Your task to perform on an android device: allow cookies in the chrome app Image 0: 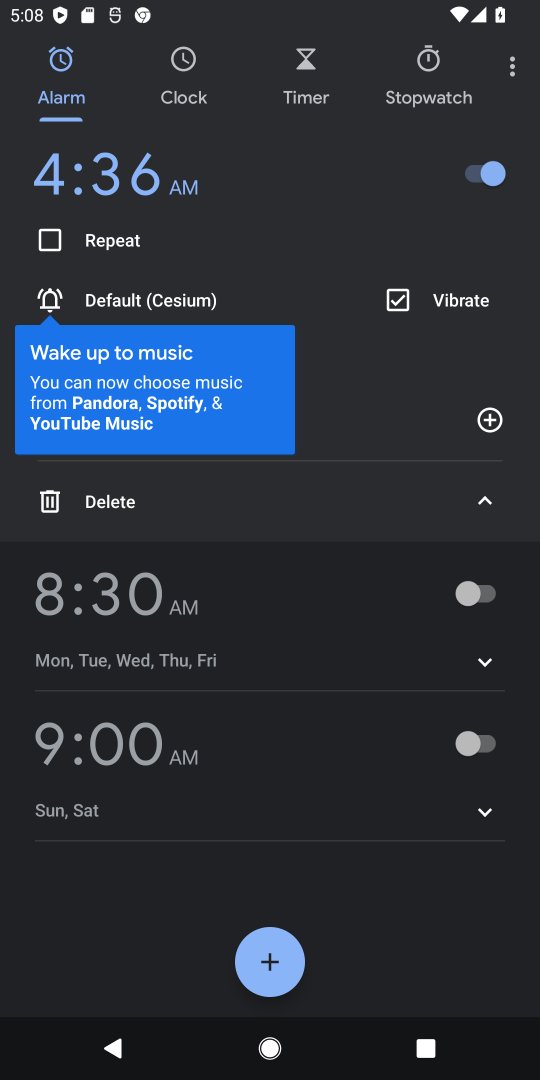
Step 0: press home button
Your task to perform on an android device: allow cookies in the chrome app Image 1: 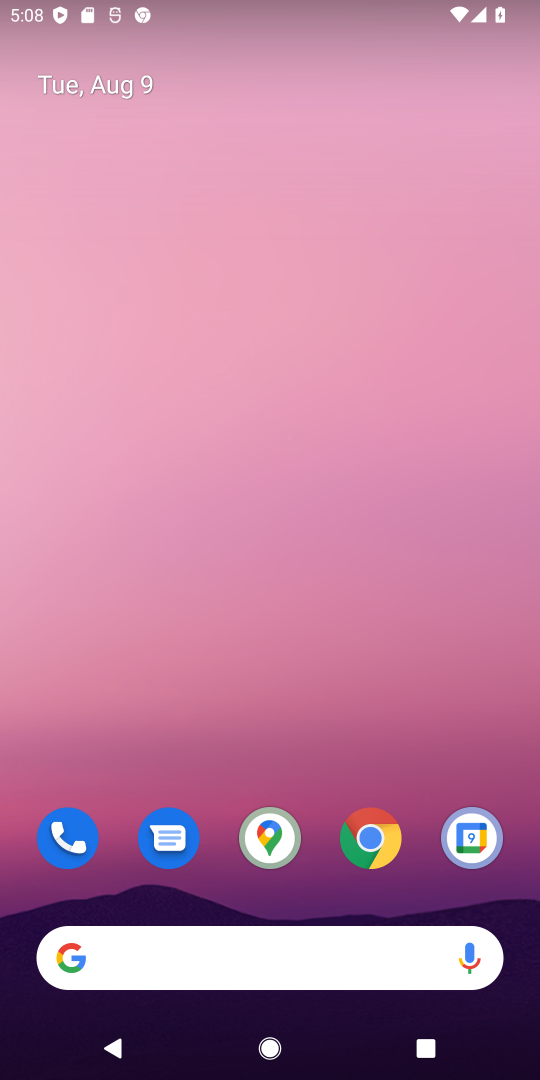
Step 1: click (388, 872)
Your task to perform on an android device: allow cookies in the chrome app Image 2: 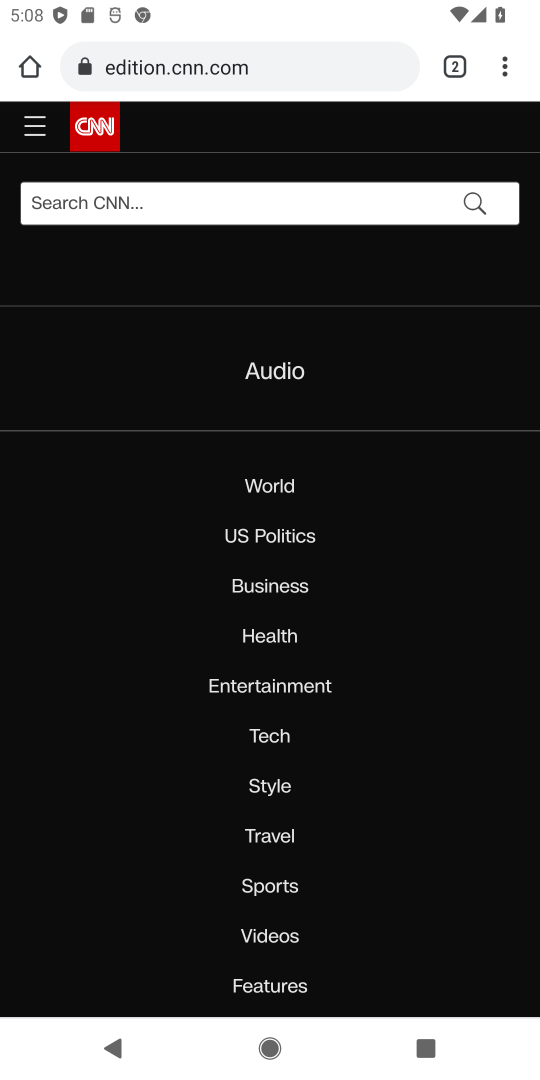
Step 2: click (519, 80)
Your task to perform on an android device: allow cookies in the chrome app Image 3: 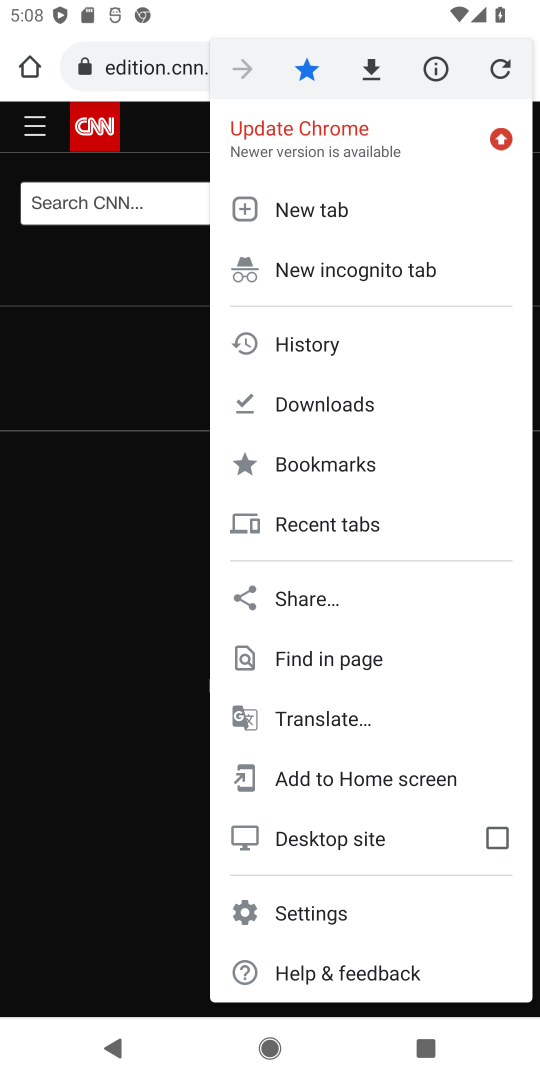
Step 3: click (304, 908)
Your task to perform on an android device: allow cookies in the chrome app Image 4: 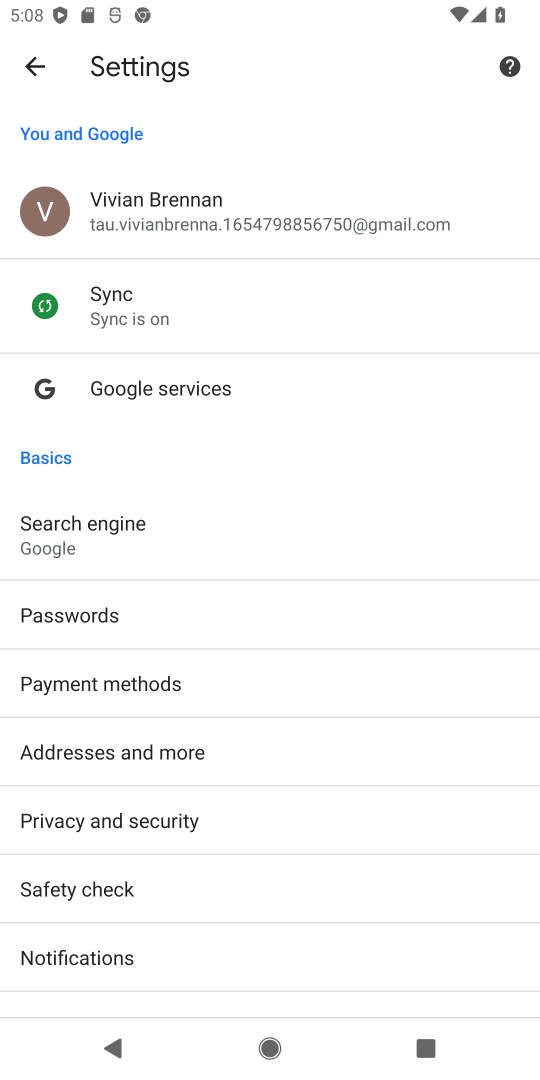
Step 4: drag from (216, 902) to (194, 298)
Your task to perform on an android device: allow cookies in the chrome app Image 5: 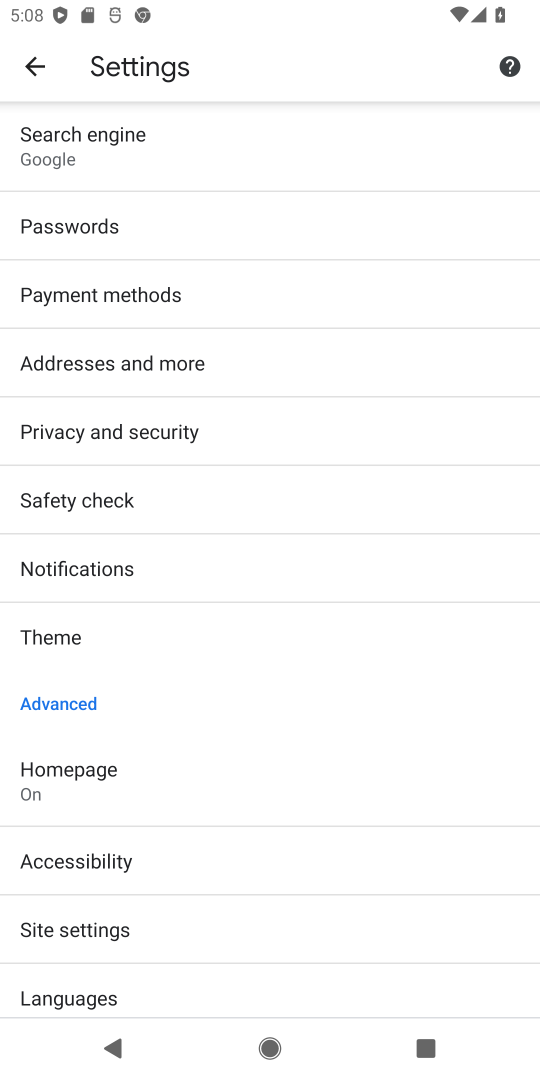
Step 5: click (229, 915)
Your task to perform on an android device: allow cookies in the chrome app Image 6: 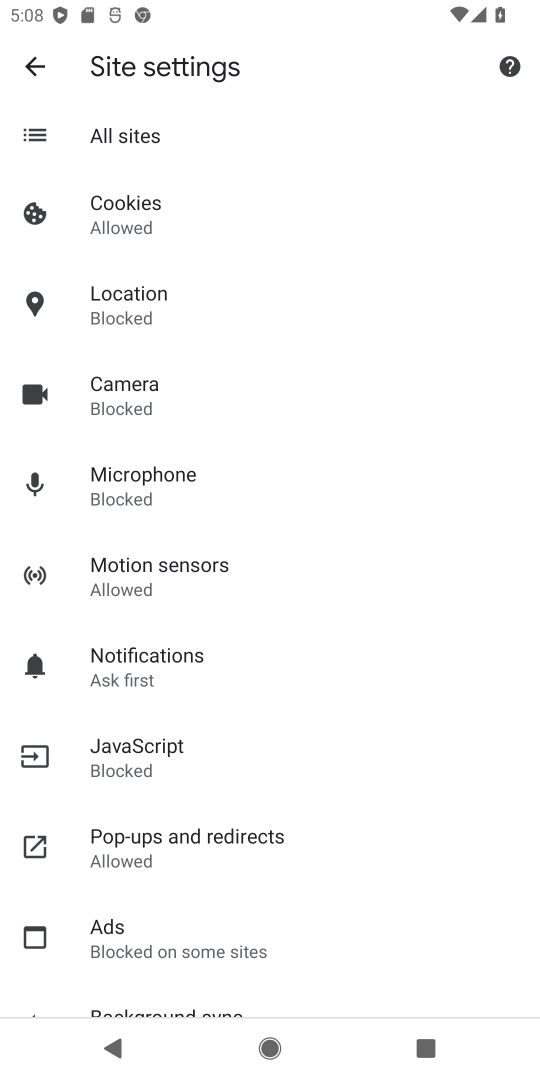
Step 6: click (193, 199)
Your task to perform on an android device: allow cookies in the chrome app Image 7: 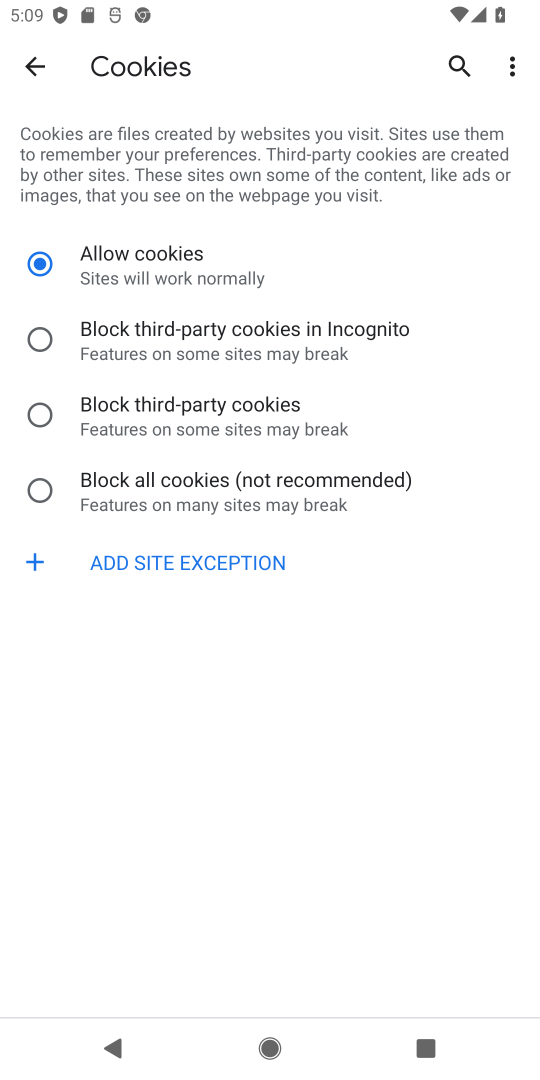
Step 7: task complete